Your task to perform on an android device: Set the phone to "Do not disturb". Image 0: 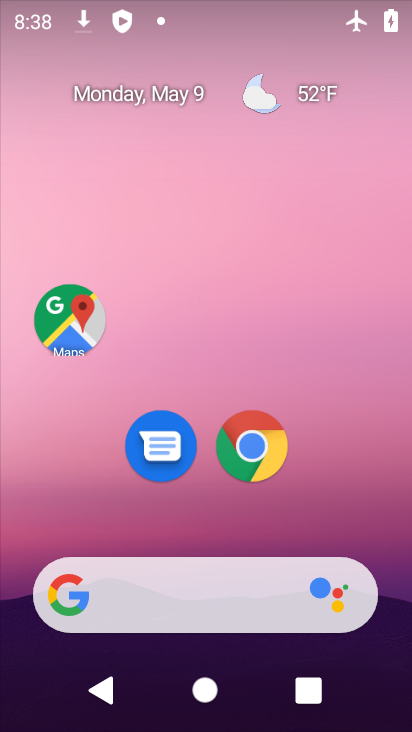
Step 0: drag from (381, 559) to (328, 86)
Your task to perform on an android device: Set the phone to "Do not disturb". Image 1: 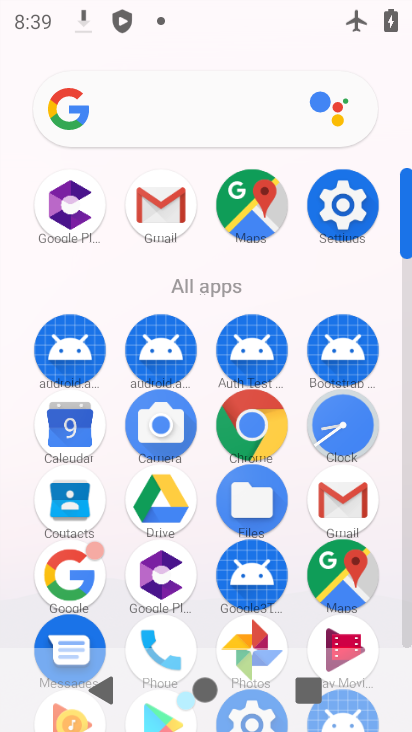
Step 1: click (409, 632)
Your task to perform on an android device: Set the phone to "Do not disturb". Image 2: 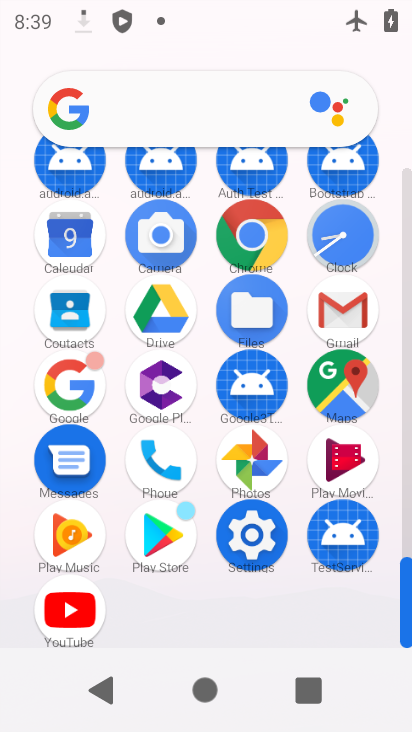
Step 2: click (248, 534)
Your task to perform on an android device: Set the phone to "Do not disturb". Image 3: 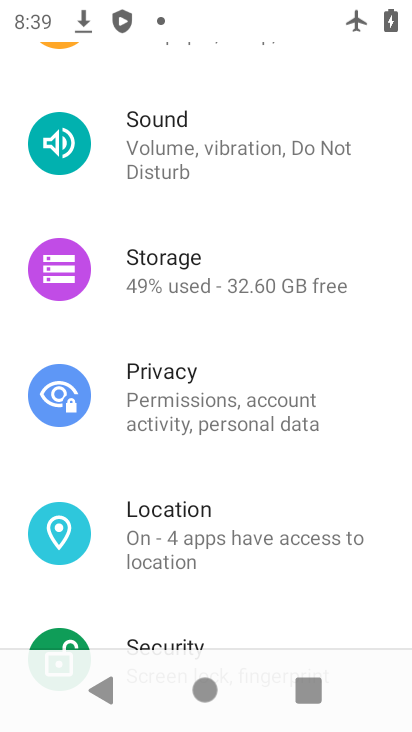
Step 3: click (188, 145)
Your task to perform on an android device: Set the phone to "Do not disturb". Image 4: 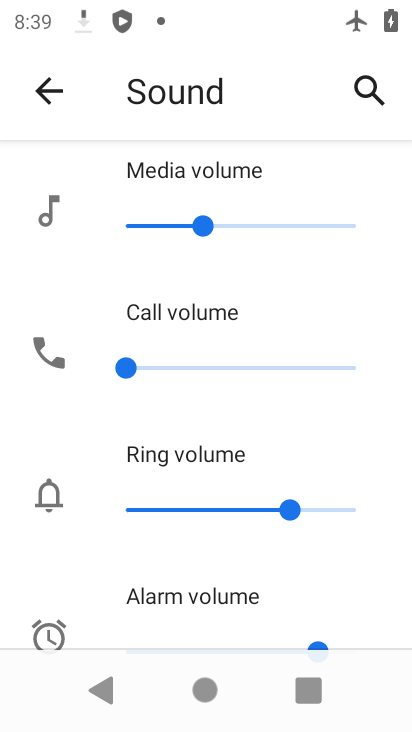
Step 4: drag from (195, 573) to (295, 70)
Your task to perform on an android device: Set the phone to "Do not disturb". Image 5: 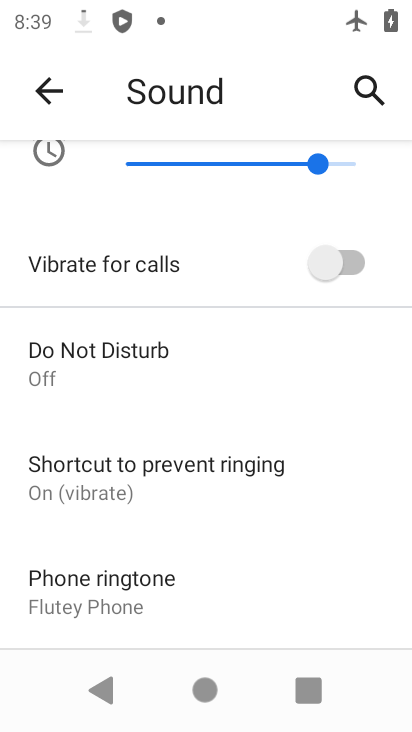
Step 5: click (38, 371)
Your task to perform on an android device: Set the phone to "Do not disturb". Image 6: 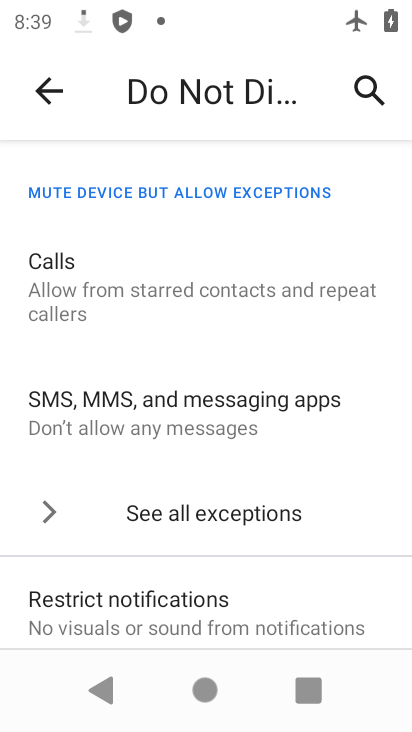
Step 6: drag from (229, 577) to (213, 78)
Your task to perform on an android device: Set the phone to "Do not disturb". Image 7: 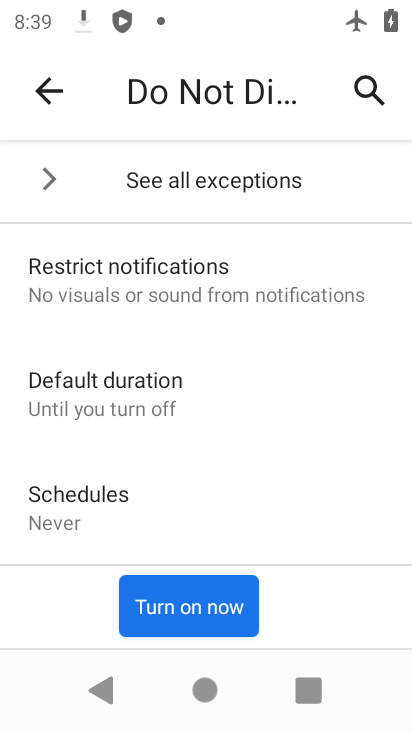
Step 7: click (179, 609)
Your task to perform on an android device: Set the phone to "Do not disturb". Image 8: 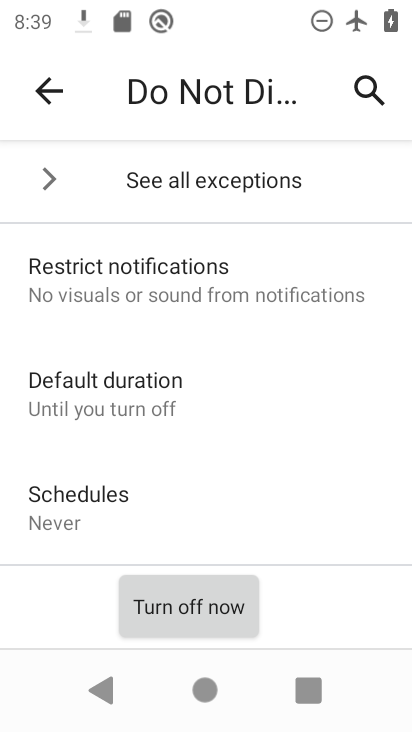
Step 8: task complete